Your task to perform on an android device: change notifications settings Image 0: 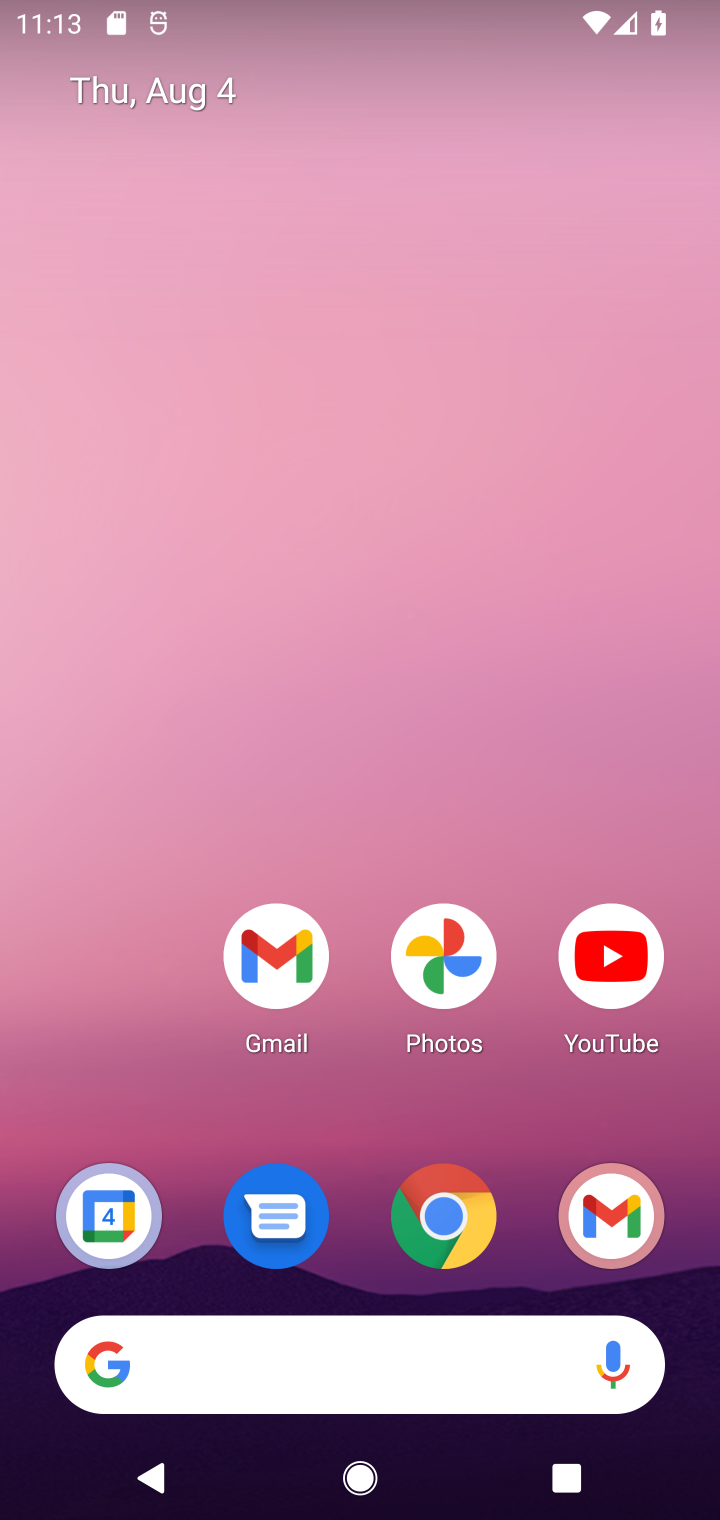
Step 0: drag from (133, 1056) to (367, 1)
Your task to perform on an android device: change notifications settings Image 1: 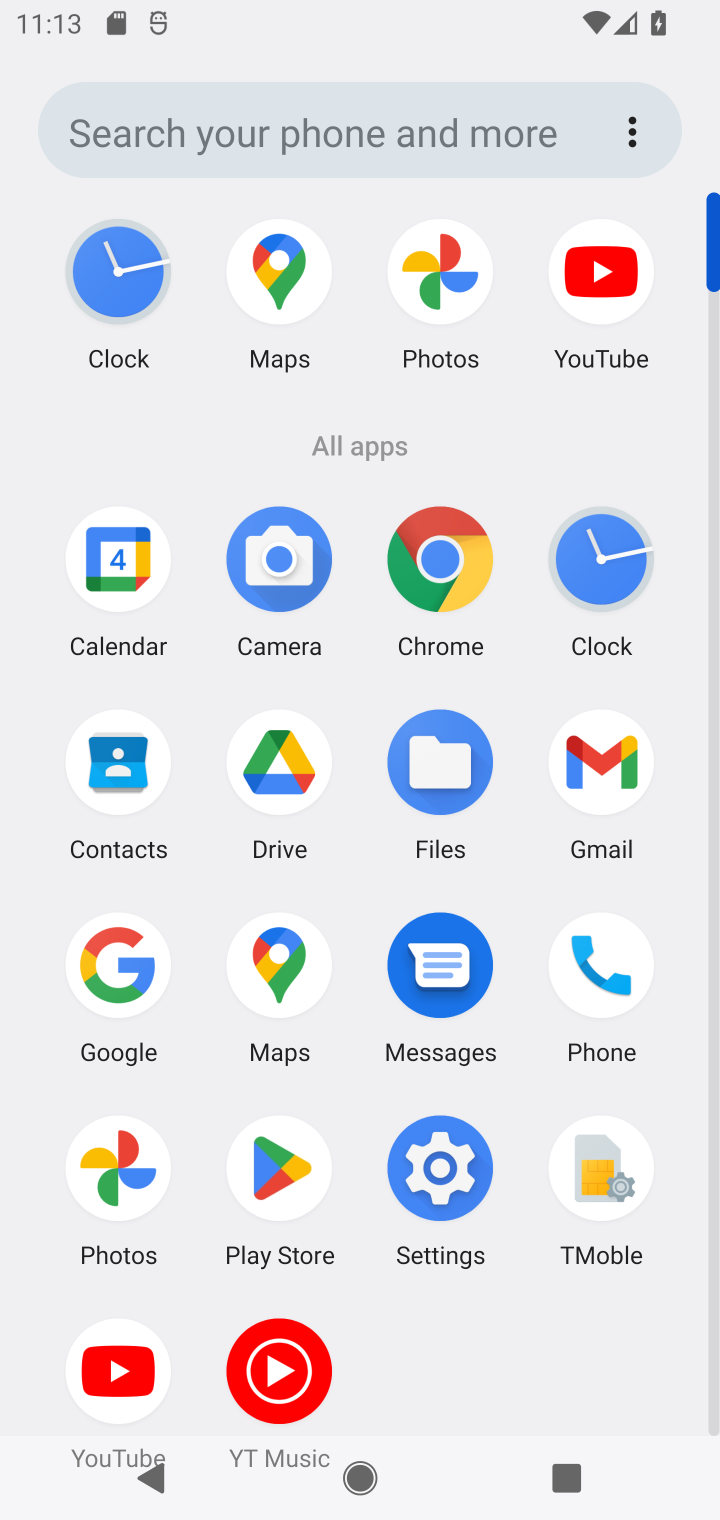
Step 1: click (446, 1192)
Your task to perform on an android device: change notifications settings Image 2: 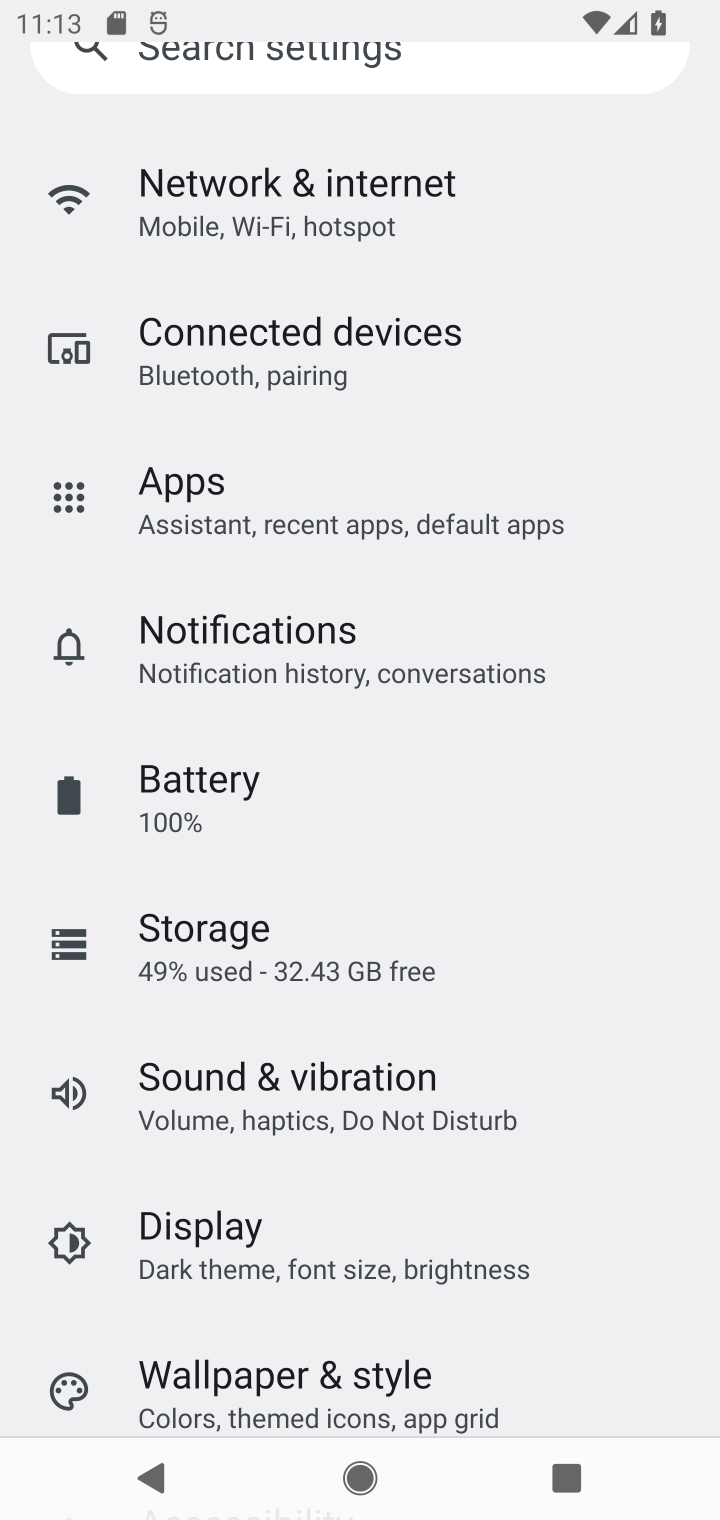
Step 2: click (389, 644)
Your task to perform on an android device: change notifications settings Image 3: 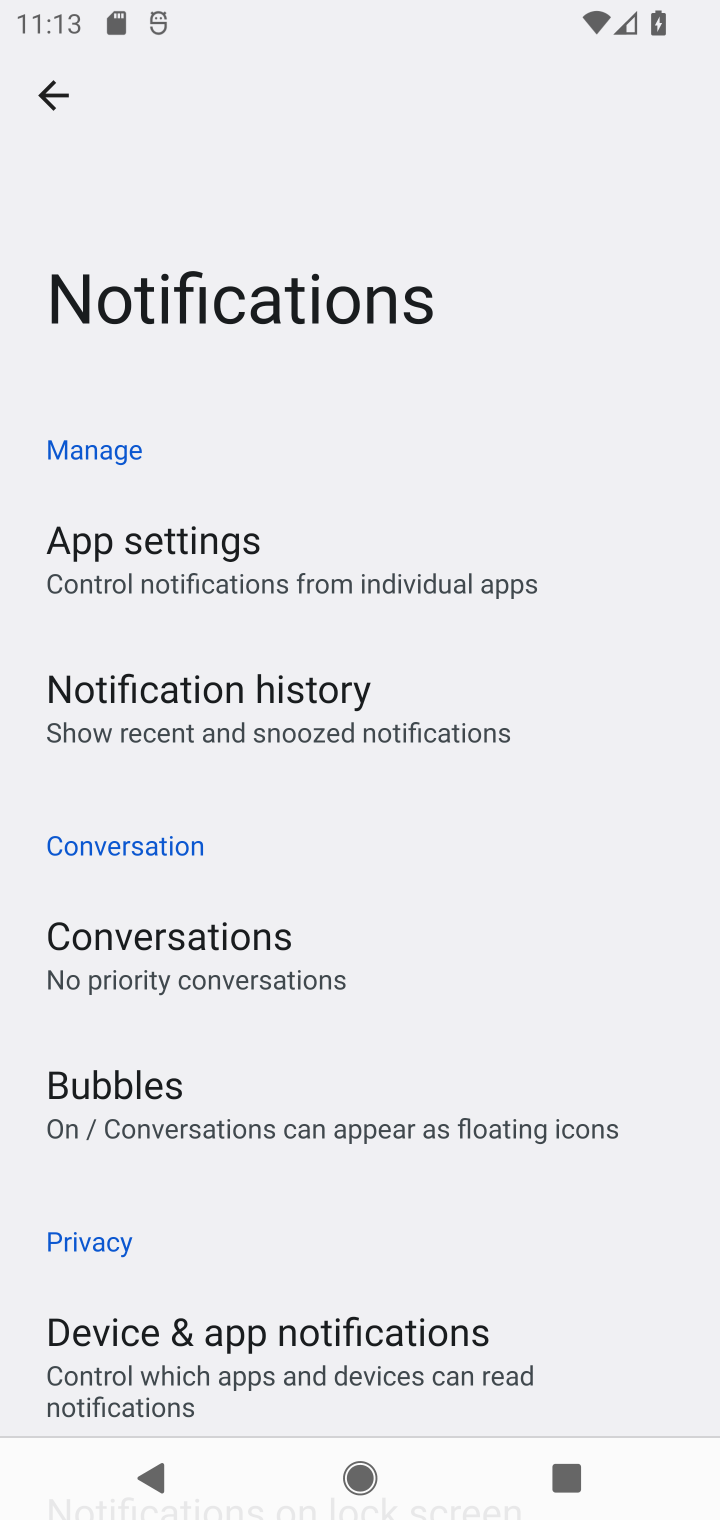
Step 3: click (380, 559)
Your task to perform on an android device: change notifications settings Image 4: 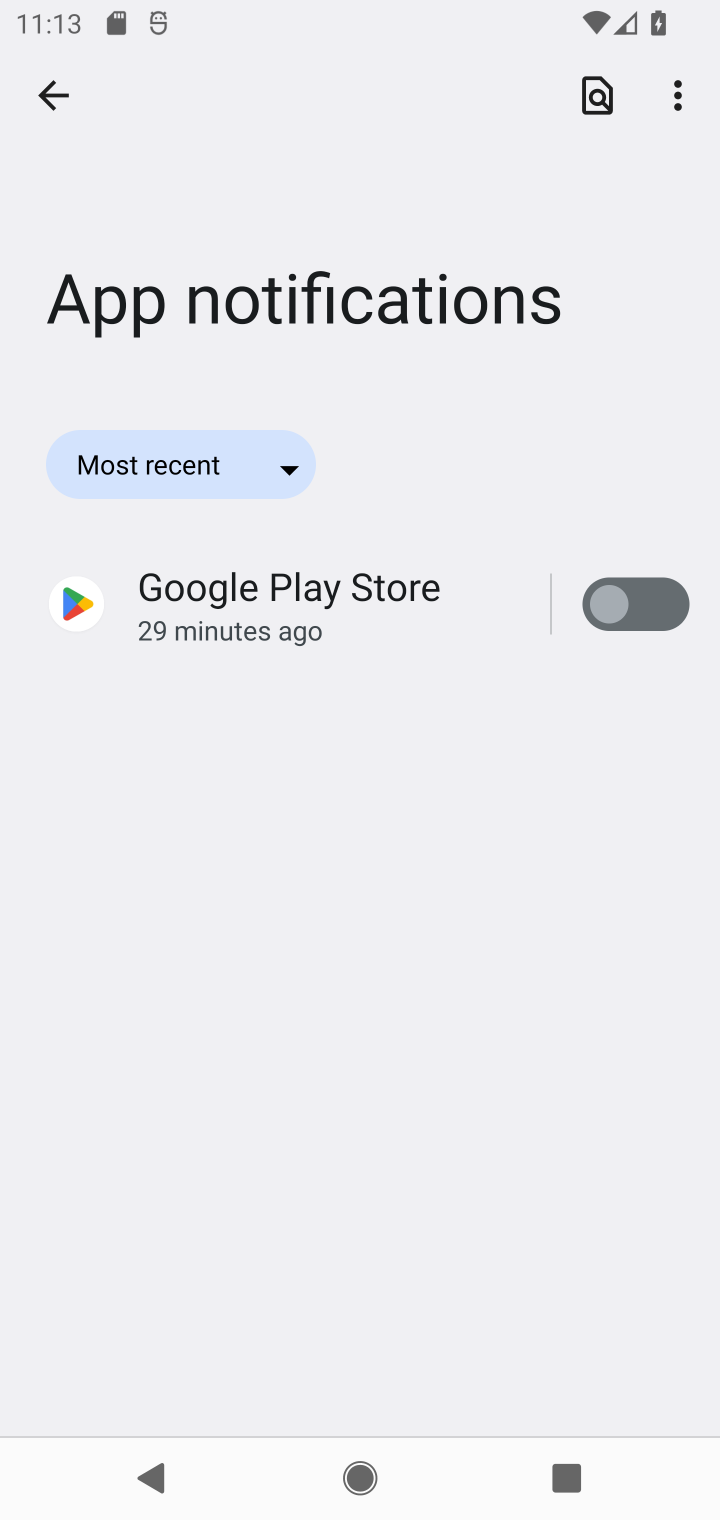
Step 4: click (633, 570)
Your task to perform on an android device: change notifications settings Image 5: 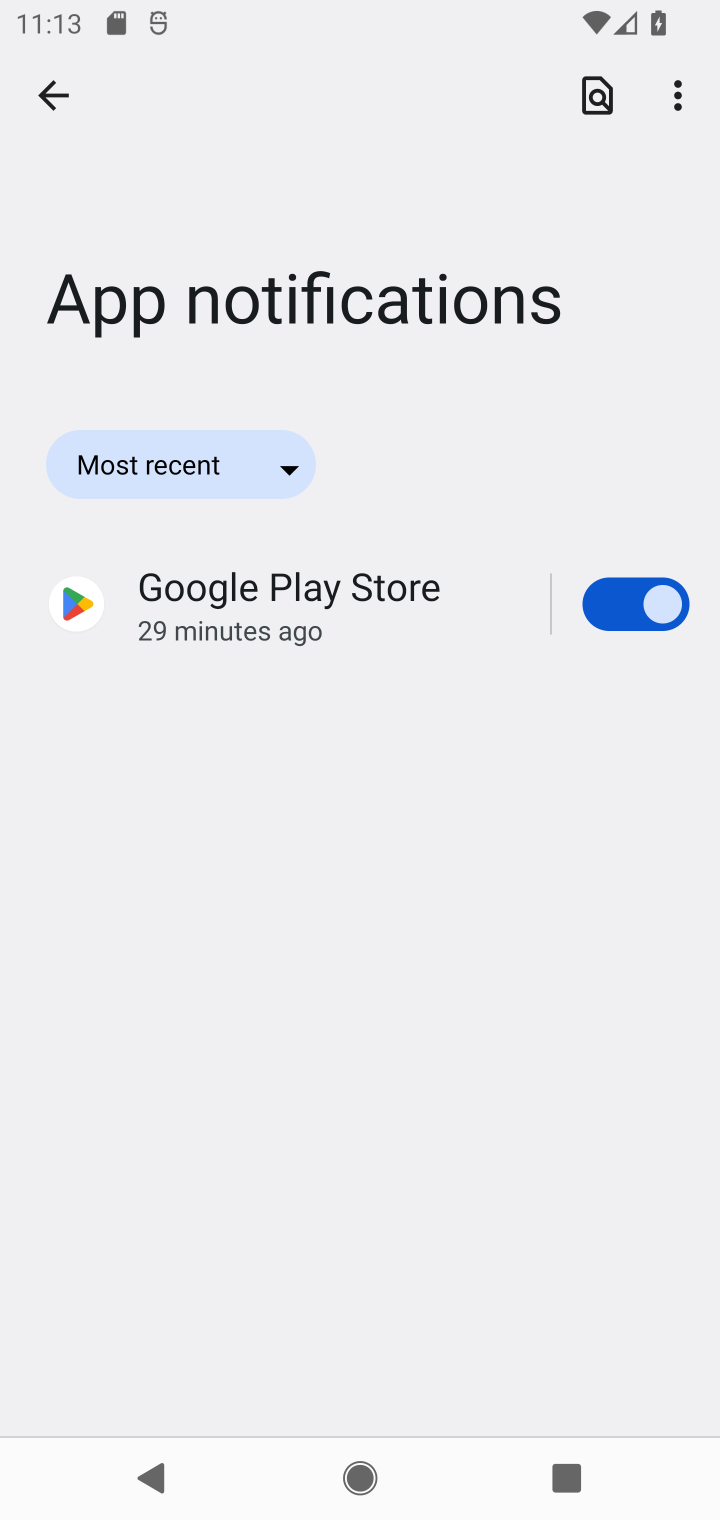
Step 5: task complete